Your task to perform on an android device: Go to Wikipedia Image 0: 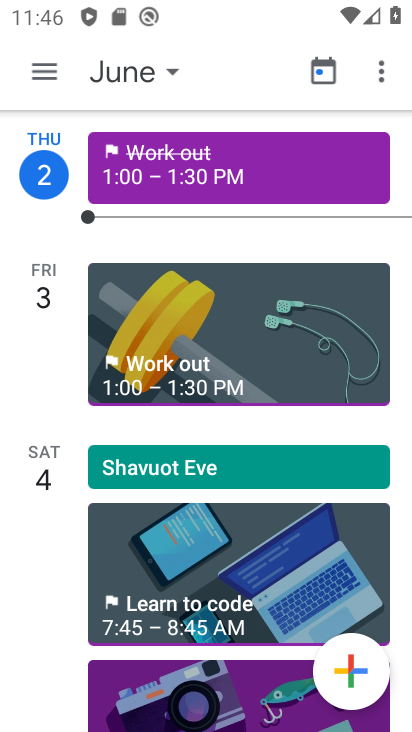
Step 0: task complete